Your task to perform on an android device: Open Reddit.com Image 0: 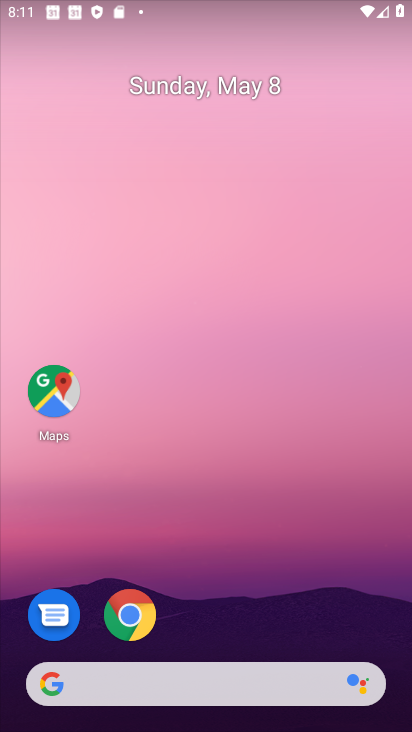
Step 0: drag from (231, 610) to (248, 181)
Your task to perform on an android device: Open Reddit.com Image 1: 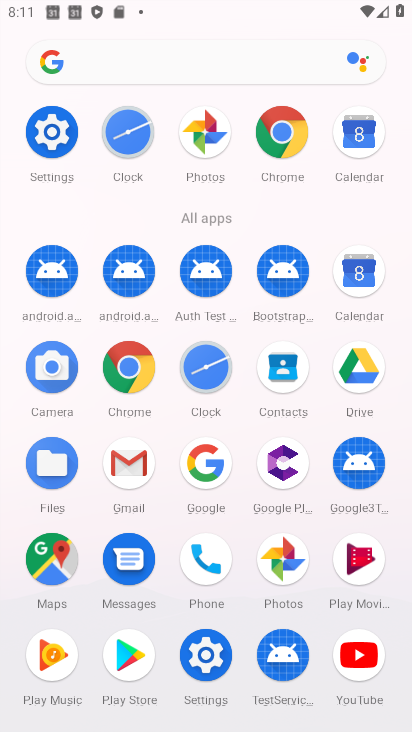
Step 1: click (290, 141)
Your task to perform on an android device: Open Reddit.com Image 2: 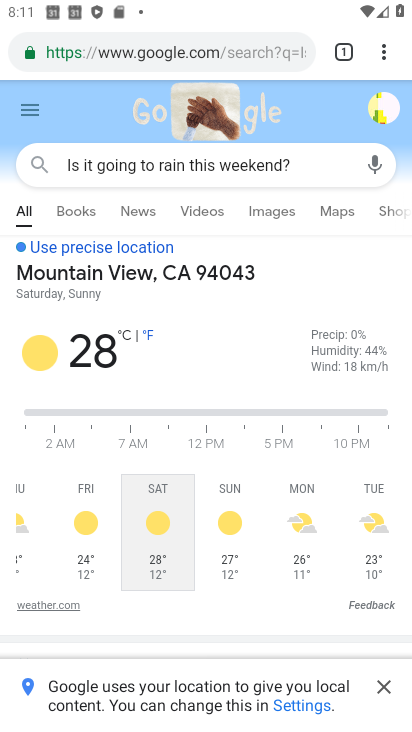
Step 2: click (209, 49)
Your task to perform on an android device: Open Reddit.com Image 3: 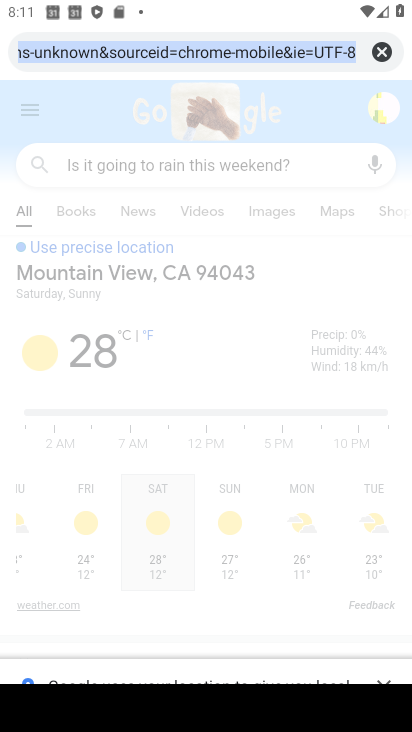
Step 3: type "Reddit.com"
Your task to perform on an android device: Open Reddit.com Image 4: 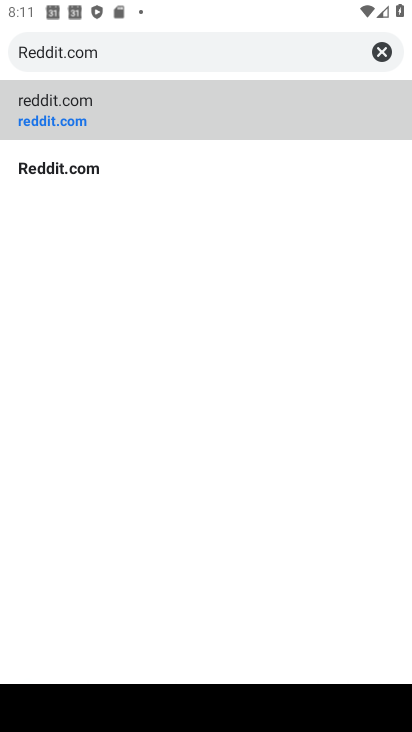
Step 4: click (39, 123)
Your task to perform on an android device: Open Reddit.com Image 5: 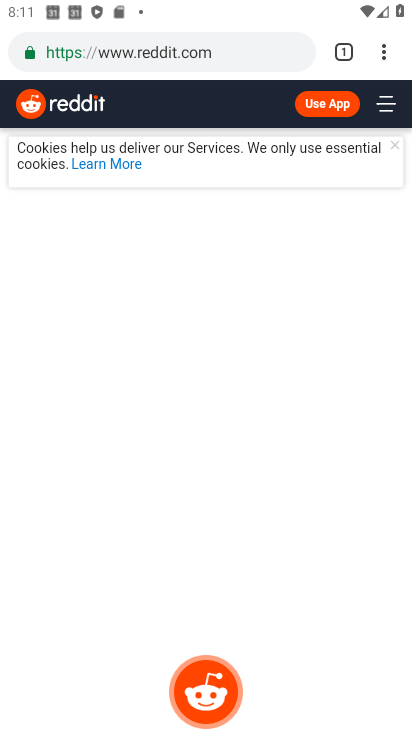
Step 5: task complete